Your task to perform on an android device: turn off priority inbox in the gmail app Image 0: 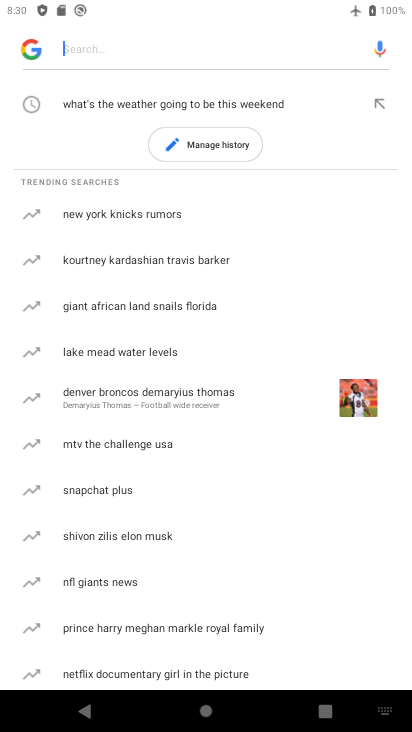
Step 0: press home button
Your task to perform on an android device: turn off priority inbox in the gmail app Image 1: 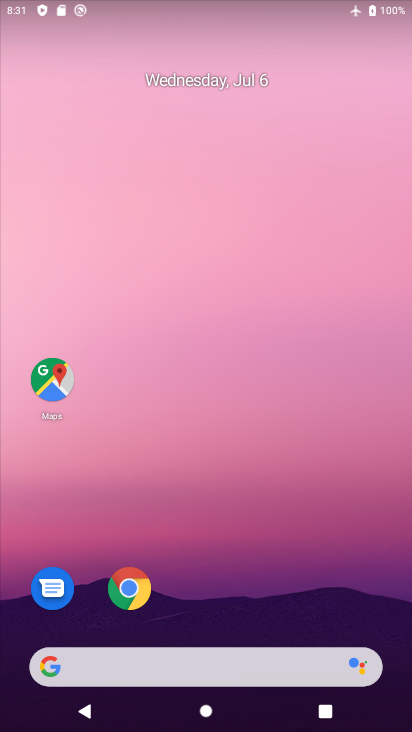
Step 1: drag from (210, 541) to (119, 47)
Your task to perform on an android device: turn off priority inbox in the gmail app Image 2: 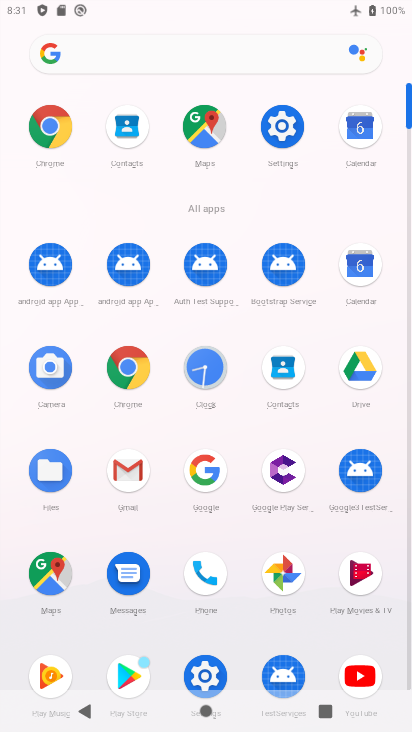
Step 2: click (126, 465)
Your task to perform on an android device: turn off priority inbox in the gmail app Image 3: 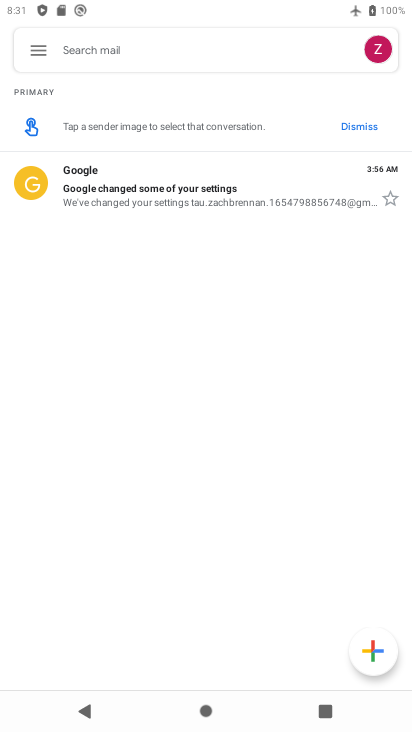
Step 3: click (35, 44)
Your task to perform on an android device: turn off priority inbox in the gmail app Image 4: 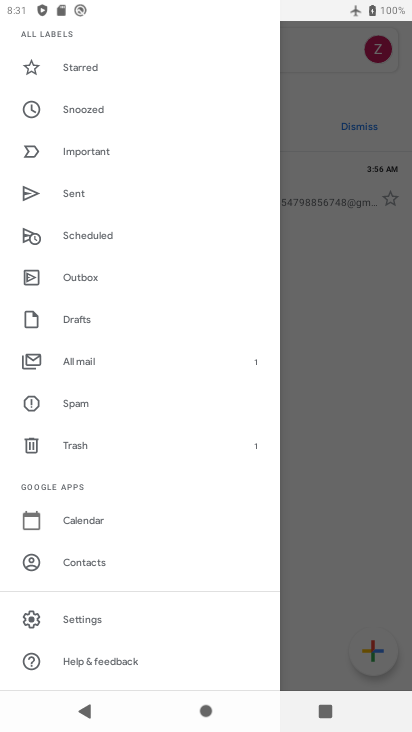
Step 4: click (75, 617)
Your task to perform on an android device: turn off priority inbox in the gmail app Image 5: 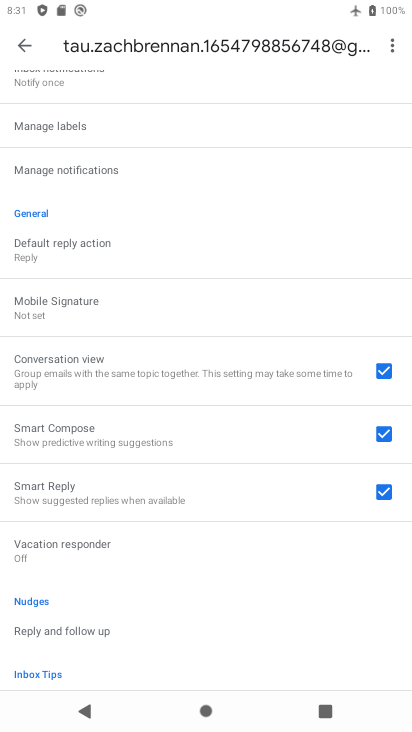
Step 5: drag from (178, 197) to (193, 565)
Your task to perform on an android device: turn off priority inbox in the gmail app Image 6: 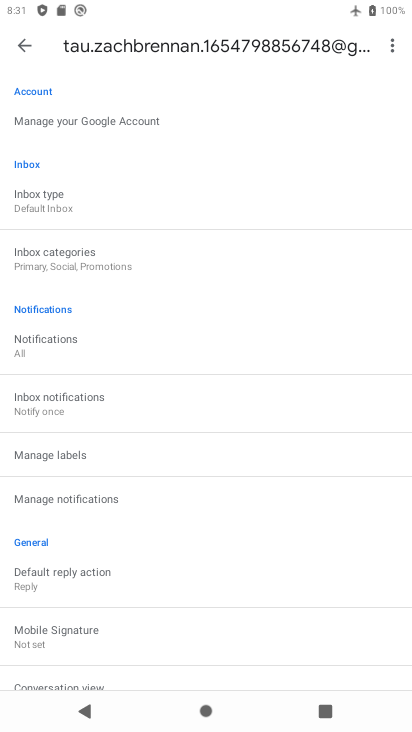
Step 6: click (46, 193)
Your task to perform on an android device: turn off priority inbox in the gmail app Image 7: 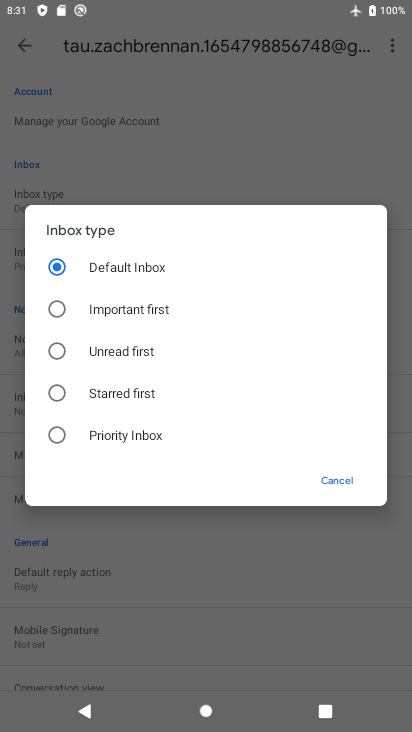
Step 7: task complete